Your task to perform on an android device: Open the phone app and click the voicemail tab. Image 0: 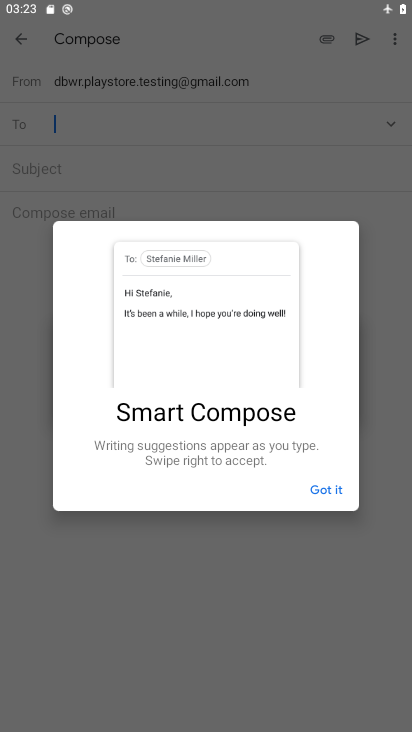
Step 0: press home button
Your task to perform on an android device: Open the phone app and click the voicemail tab. Image 1: 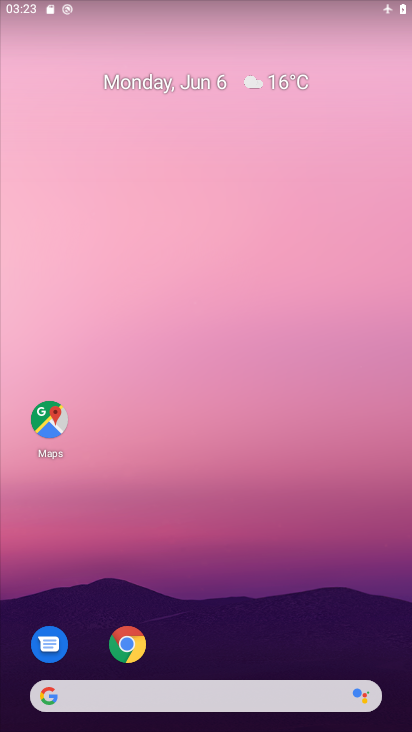
Step 1: drag from (197, 603) to (287, 10)
Your task to perform on an android device: Open the phone app and click the voicemail tab. Image 2: 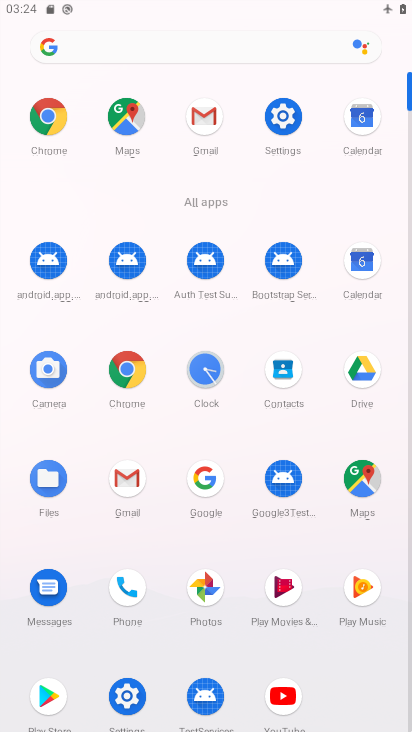
Step 2: click (127, 595)
Your task to perform on an android device: Open the phone app and click the voicemail tab. Image 3: 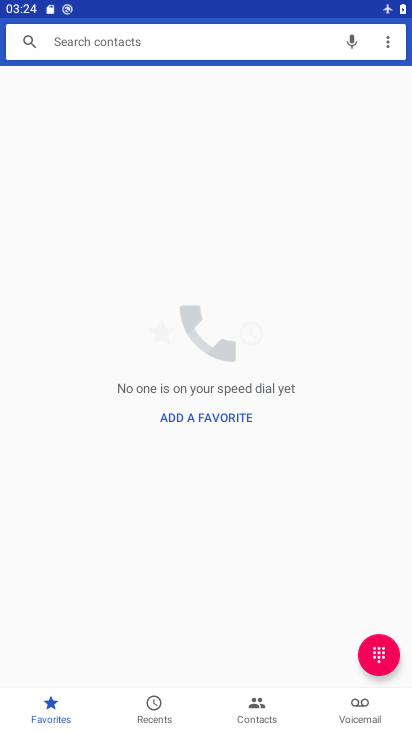
Step 3: click (356, 710)
Your task to perform on an android device: Open the phone app and click the voicemail tab. Image 4: 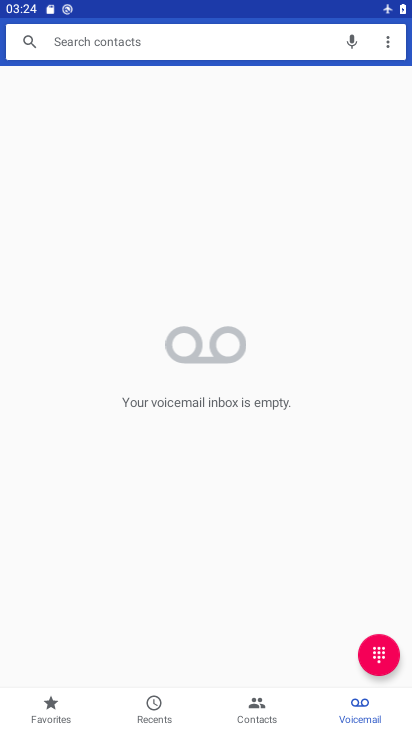
Step 4: task complete